Your task to perform on an android device: Set the phone to "Do not disturb". Image 0: 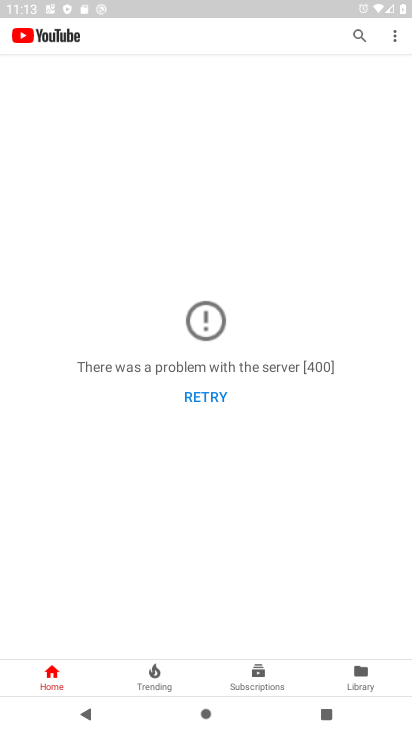
Step 0: press home button
Your task to perform on an android device: Set the phone to "Do not disturb". Image 1: 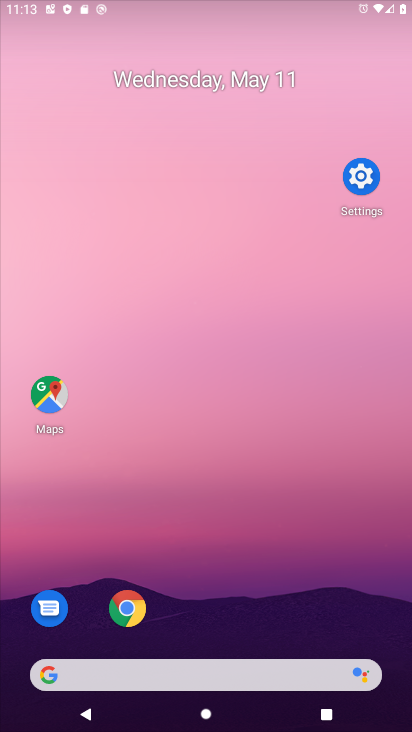
Step 1: drag from (259, 592) to (253, 39)
Your task to perform on an android device: Set the phone to "Do not disturb". Image 2: 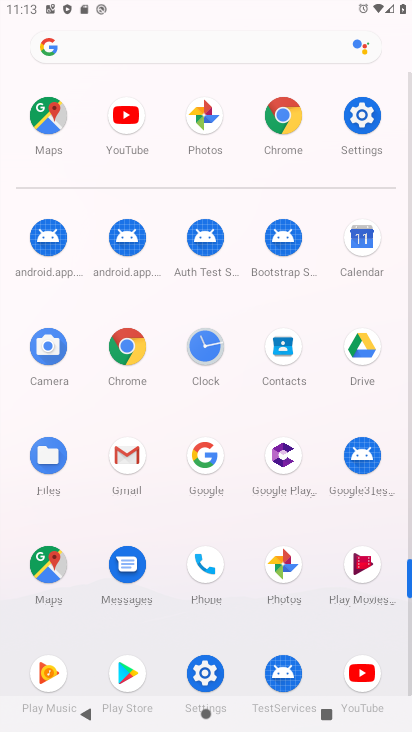
Step 2: click (367, 126)
Your task to perform on an android device: Set the phone to "Do not disturb". Image 3: 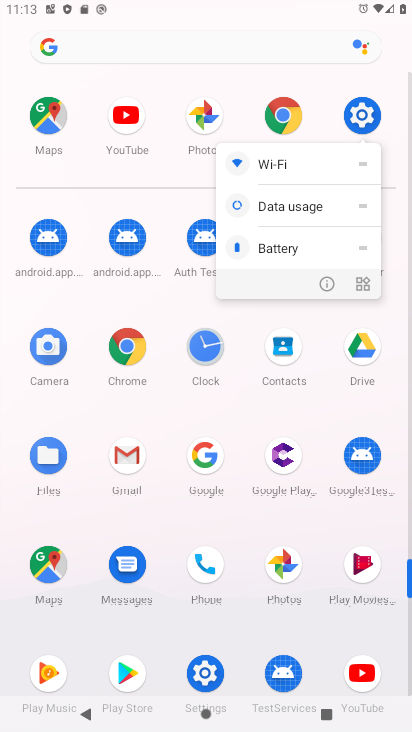
Step 3: click (351, 115)
Your task to perform on an android device: Set the phone to "Do not disturb". Image 4: 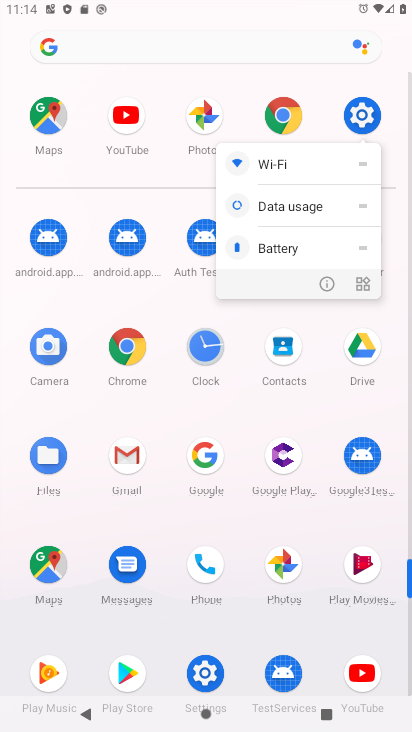
Step 4: click (364, 114)
Your task to perform on an android device: Set the phone to "Do not disturb". Image 5: 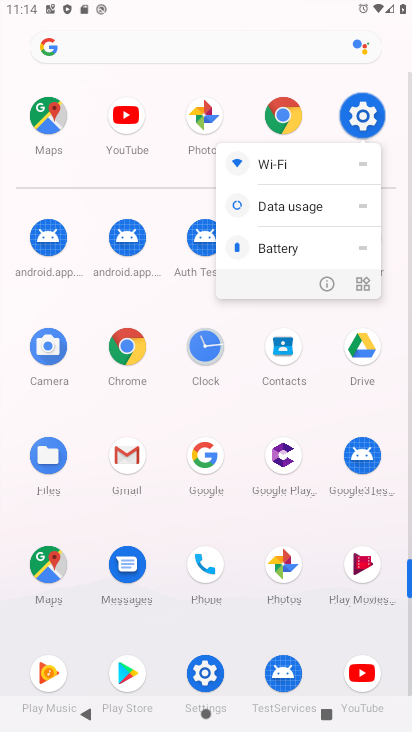
Step 5: click (367, 111)
Your task to perform on an android device: Set the phone to "Do not disturb". Image 6: 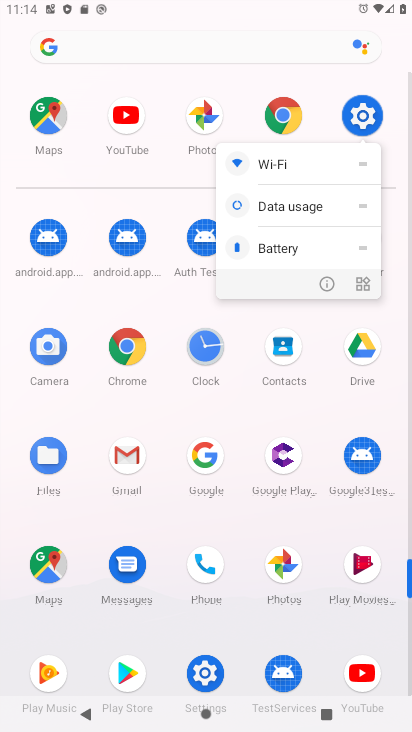
Step 6: click (367, 111)
Your task to perform on an android device: Set the phone to "Do not disturb". Image 7: 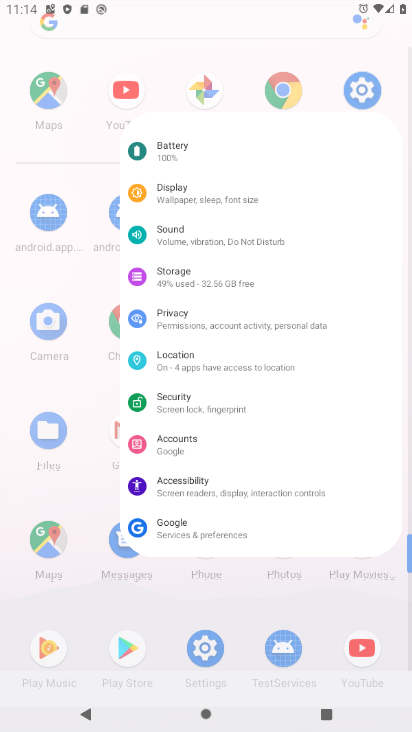
Step 7: click (365, 111)
Your task to perform on an android device: Set the phone to "Do not disturb". Image 8: 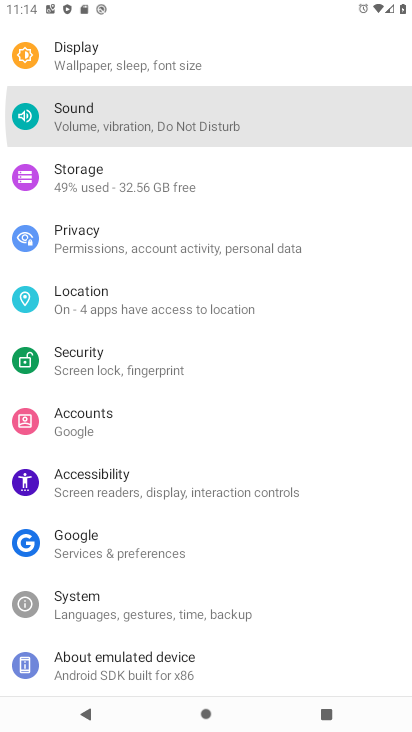
Step 8: click (365, 111)
Your task to perform on an android device: Set the phone to "Do not disturb". Image 9: 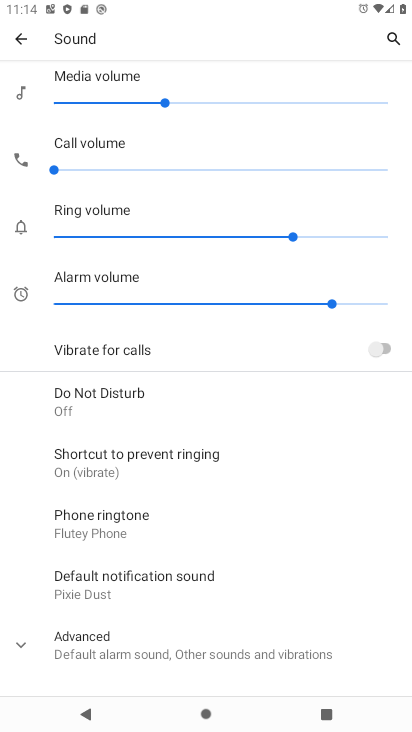
Step 9: click (21, 30)
Your task to perform on an android device: Set the phone to "Do not disturb". Image 10: 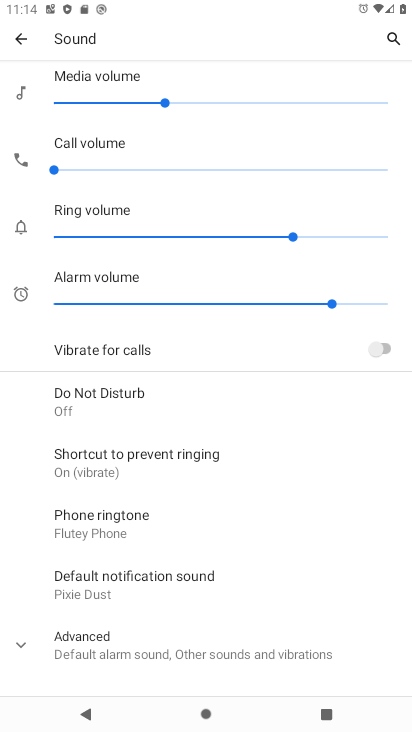
Step 10: click (18, 36)
Your task to perform on an android device: Set the phone to "Do not disturb". Image 11: 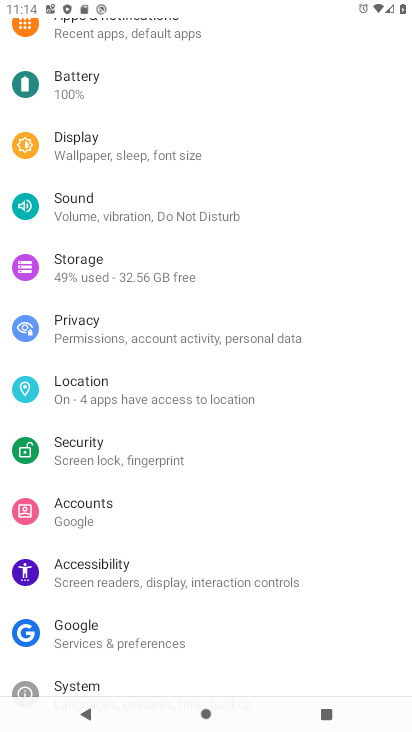
Step 11: click (84, 212)
Your task to perform on an android device: Set the phone to "Do not disturb". Image 12: 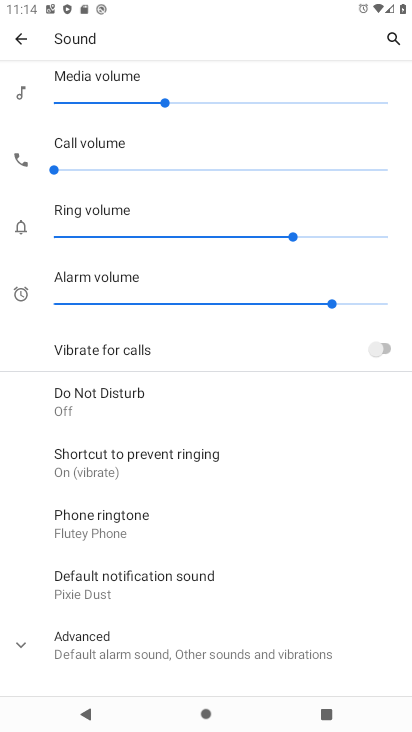
Step 12: click (77, 409)
Your task to perform on an android device: Set the phone to "Do not disturb". Image 13: 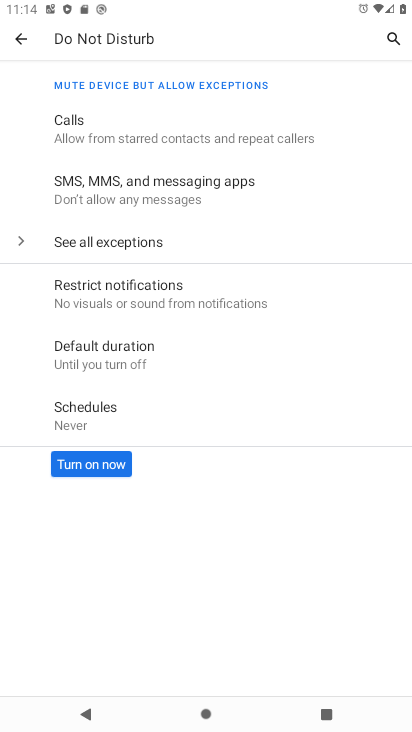
Step 13: click (78, 460)
Your task to perform on an android device: Set the phone to "Do not disturb". Image 14: 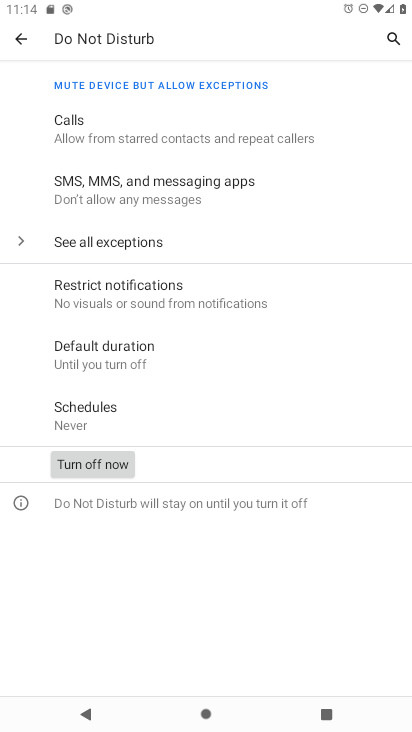
Step 14: task complete